Your task to perform on an android device: turn on data saver in the chrome app Image 0: 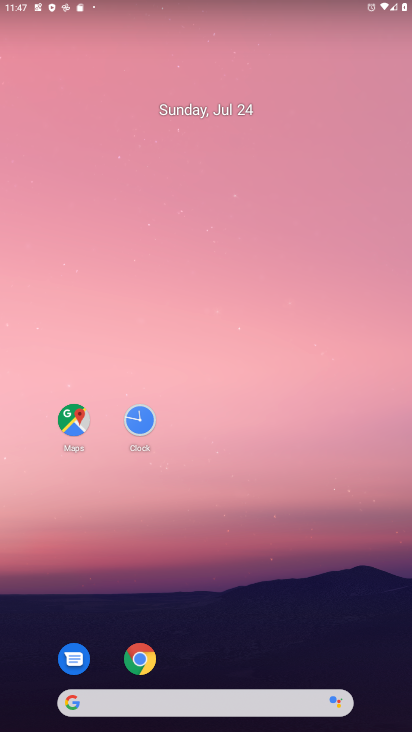
Step 0: click (148, 654)
Your task to perform on an android device: turn on data saver in the chrome app Image 1: 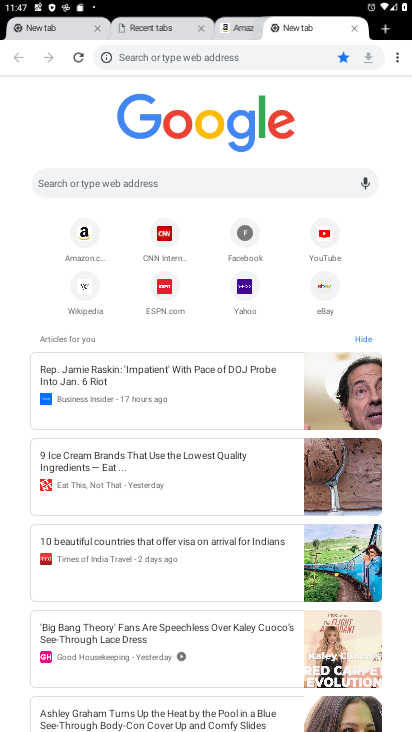
Step 1: click (393, 53)
Your task to perform on an android device: turn on data saver in the chrome app Image 2: 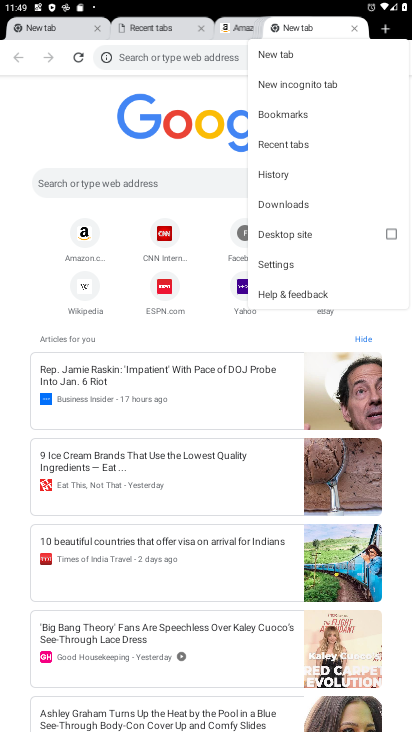
Step 2: click (285, 267)
Your task to perform on an android device: turn on data saver in the chrome app Image 3: 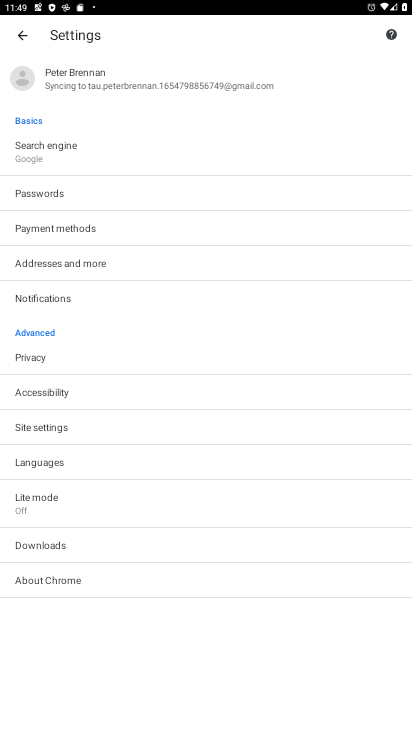
Step 3: click (36, 506)
Your task to perform on an android device: turn on data saver in the chrome app Image 4: 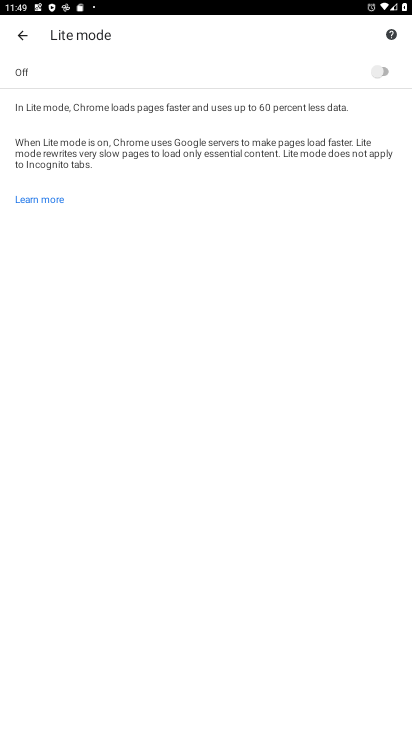
Step 4: click (387, 73)
Your task to perform on an android device: turn on data saver in the chrome app Image 5: 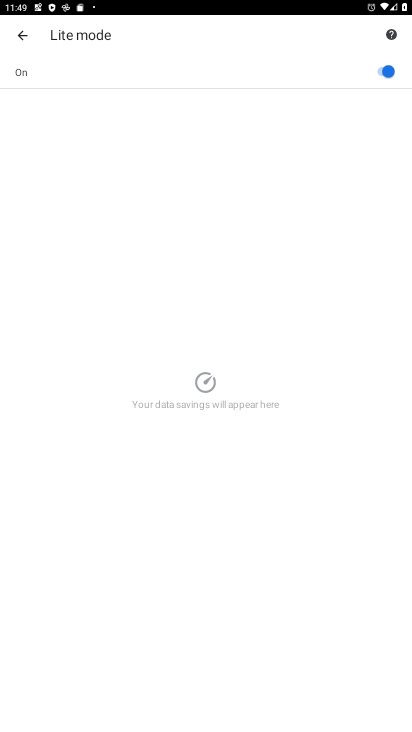
Step 5: task complete